Your task to perform on an android device: Search for seafood restaurants on Google Maps Image 0: 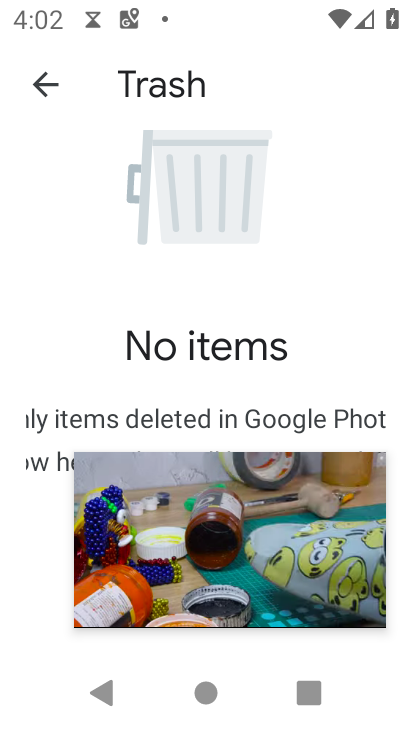
Step 0: click (341, 487)
Your task to perform on an android device: Search for seafood restaurants on Google Maps Image 1: 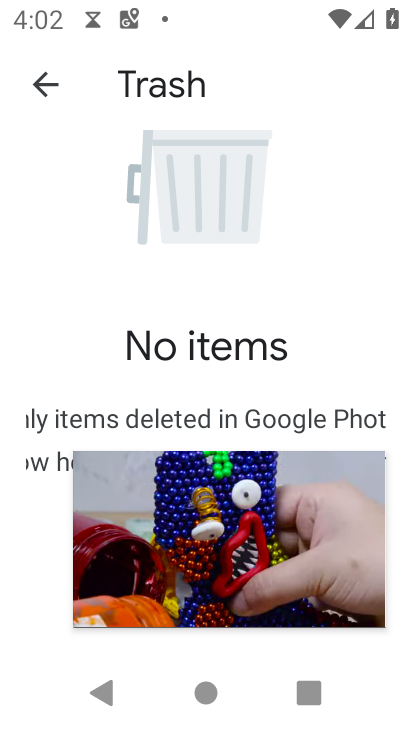
Step 1: click (271, 486)
Your task to perform on an android device: Search for seafood restaurants on Google Maps Image 2: 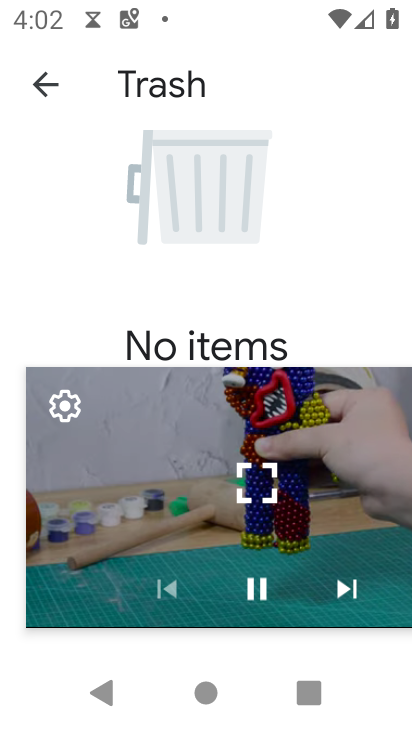
Step 2: click (252, 474)
Your task to perform on an android device: Search for seafood restaurants on Google Maps Image 3: 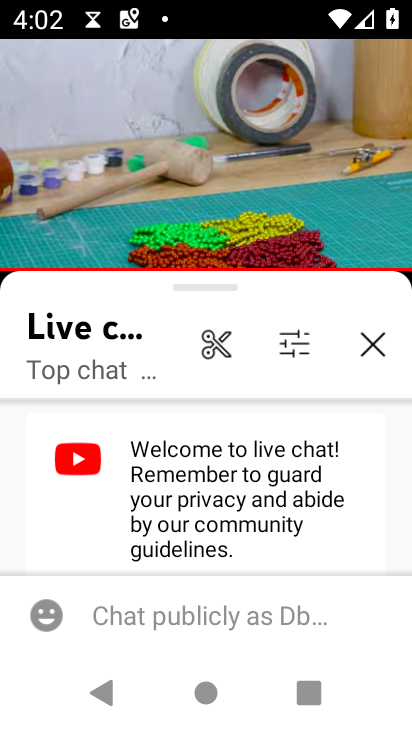
Step 3: drag from (232, 173) to (195, 713)
Your task to perform on an android device: Search for seafood restaurants on Google Maps Image 4: 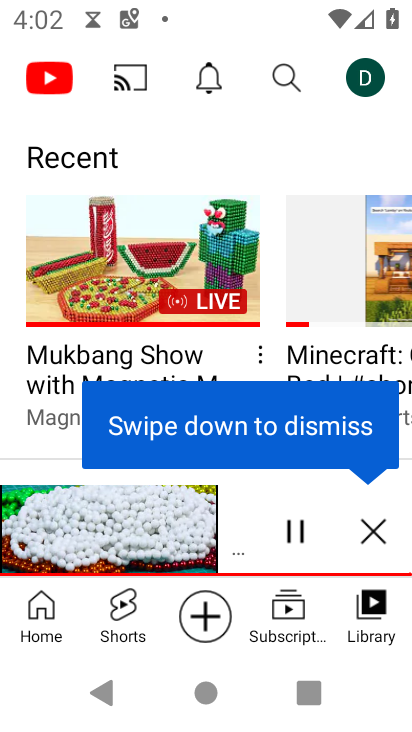
Step 4: click (363, 526)
Your task to perform on an android device: Search for seafood restaurants on Google Maps Image 5: 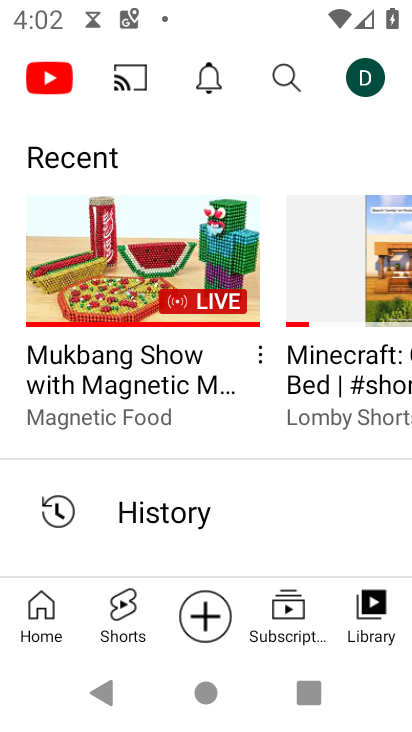
Step 5: press home button
Your task to perform on an android device: Search for seafood restaurants on Google Maps Image 6: 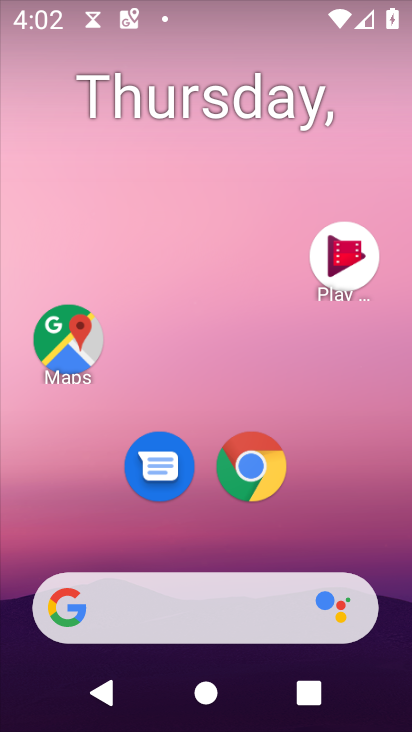
Step 6: drag from (274, 683) to (408, 253)
Your task to perform on an android device: Search for seafood restaurants on Google Maps Image 7: 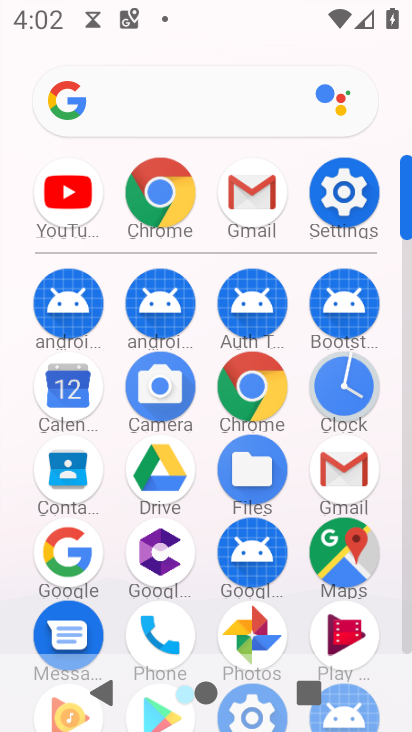
Step 7: click (337, 564)
Your task to perform on an android device: Search for seafood restaurants on Google Maps Image 8: 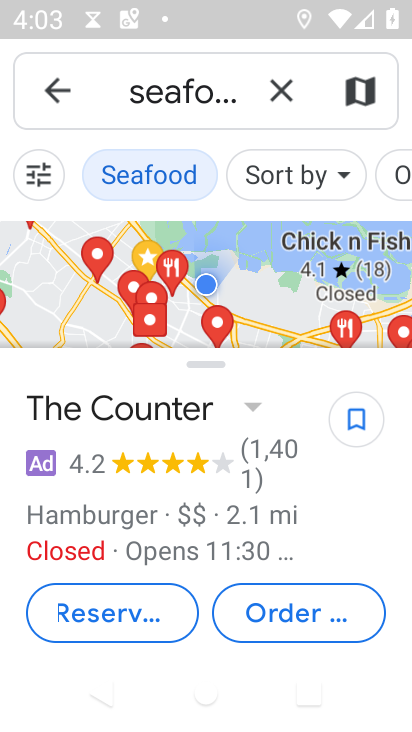
Step 8: task complete